Your task to perform on an android device: Open privacy settings Image 0: 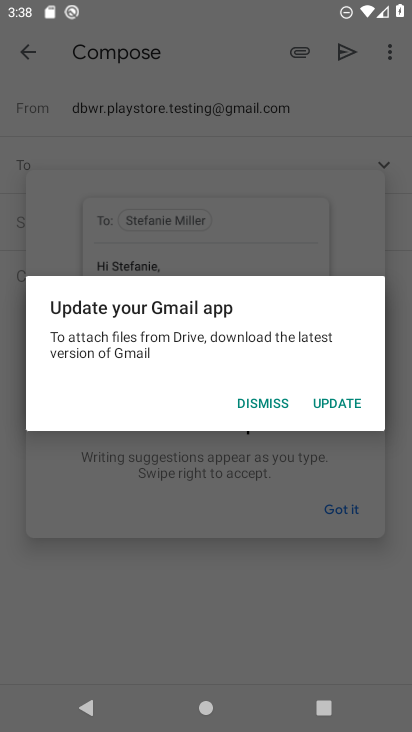
Step 0: press home button
Your task to perform on an android device: Open privacy settings Image 1: 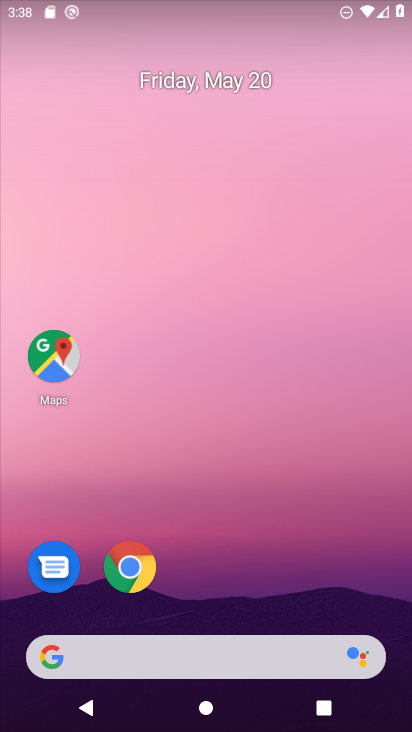
Step 1: drag from (182, 620) to (182, 211)
Your task to perform on an android device: Open privacy settings Image 2: 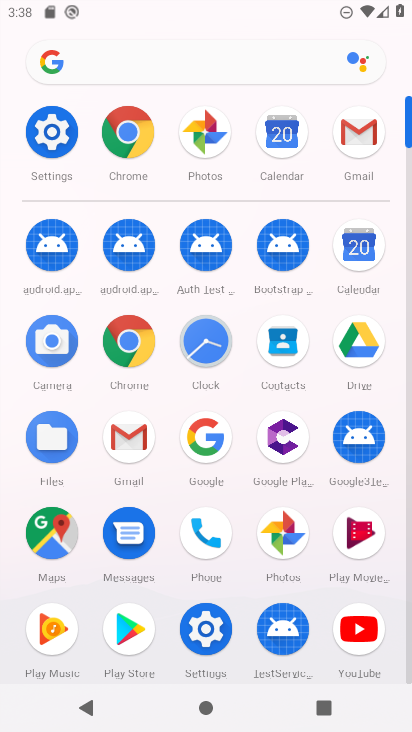
Step 2: click (48, 138)
Your task to perform on an android device: Open privacy settings Image 3: 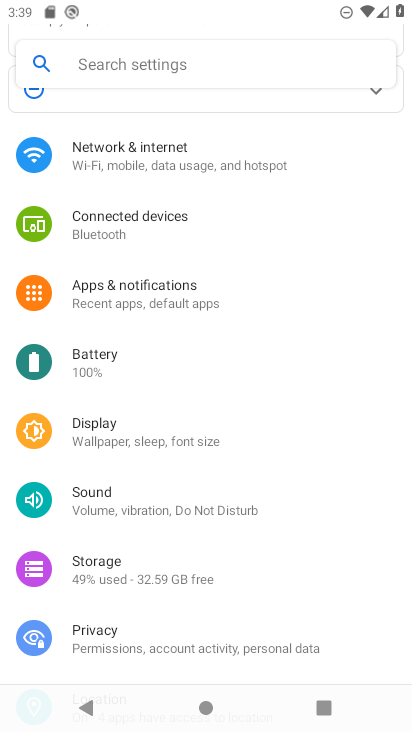
Step 3: click (144, 644)
Your task to perform on an android device: Open privacy settings Image 4: 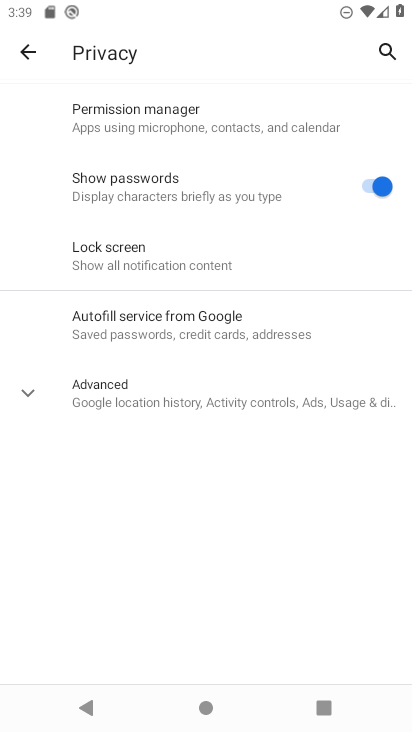
Step 4: task complete